Your task to perform on an android device: Open the calendar and show me this week's events? Image 0: 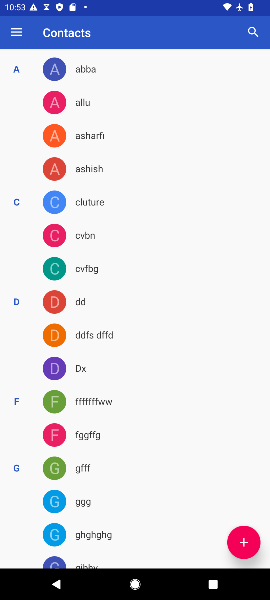
Step 0: press back button
Your task to perform on an android device: Open the calendar and show me this week's events? Image 1: 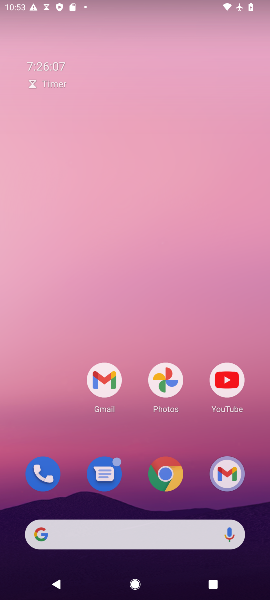
Step 1: press home button
Your task to perform on an android device: Open the calendar and show me this week's events? Image 2: 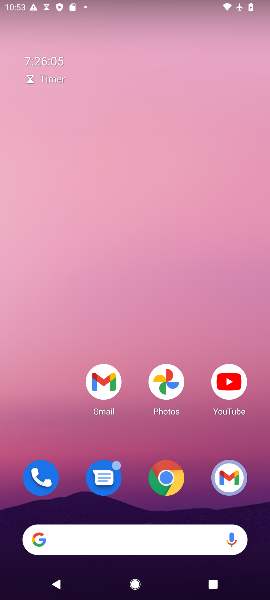
Step 2: drag from (192, 361) to (178, 149)
Your task to perform on an android device: Open the calendar and show me this week's events? Image 3: 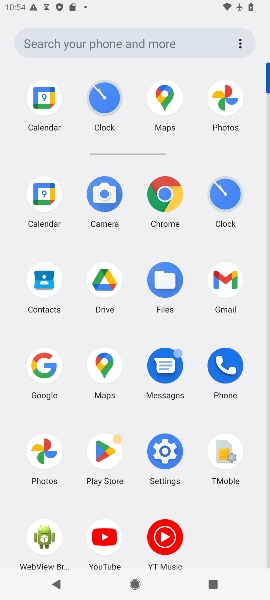
Step 3: click (43, 109)
Your task to perform on an android device: Open the calendar and show me this week's events? Image 4: 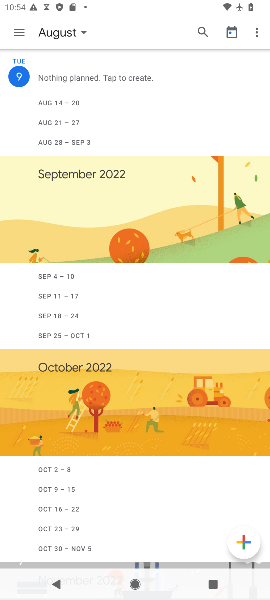
Step 4: click (23, 29)
Your task to perform on an android device: Open the calendar and show me this week's events? Image 5: 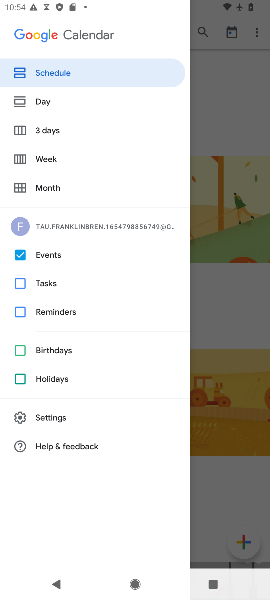
Step 5: click (53, 159)
Your task to perform on an android device: Open the calendar and show me this week's events? Image 6: 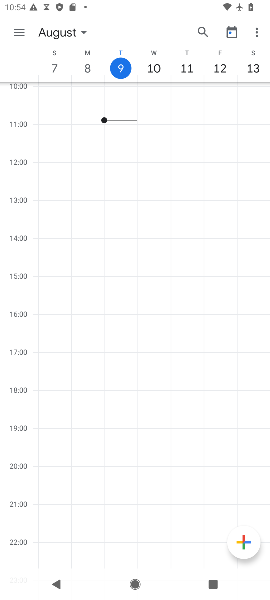
Step 6: task complete